Your task to perform on an android device: Open accessibility settings Image 0: 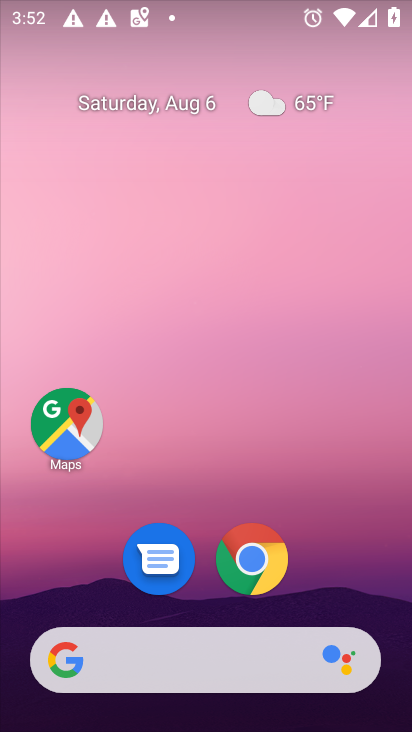
Step 0: drag from (207, 445) to (234, 15)
Your task to perform on an android device: Open accessibility settings Image 1: 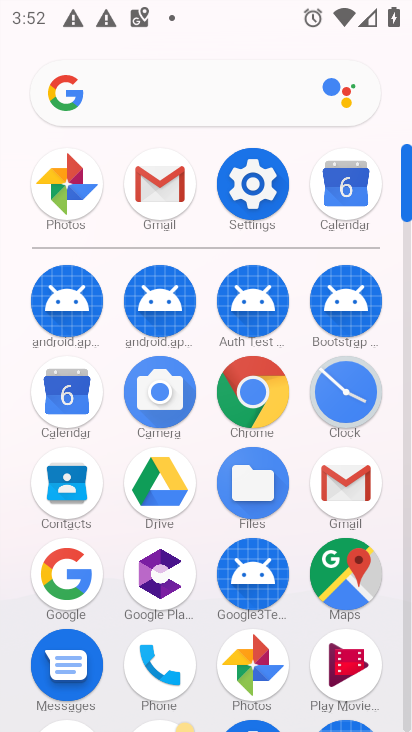
Step 1: click (257, 182)
Your task to perform on an android device: Open accessibility settings Image 2: 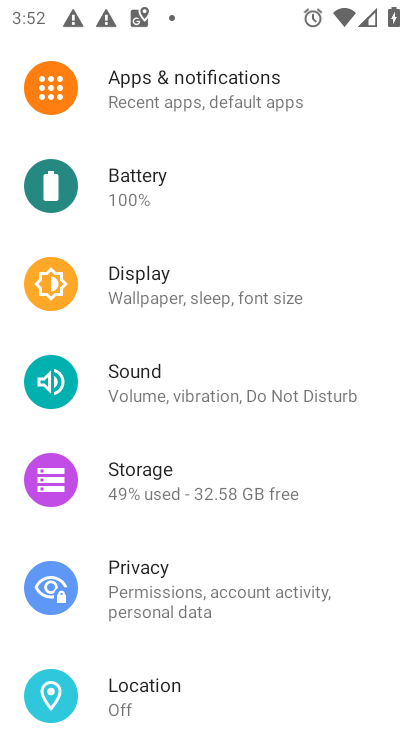
Step 2: drag from (265, 550) to (259, 266)
Your task to perform on an android device: Open accessibility settings Image 3: 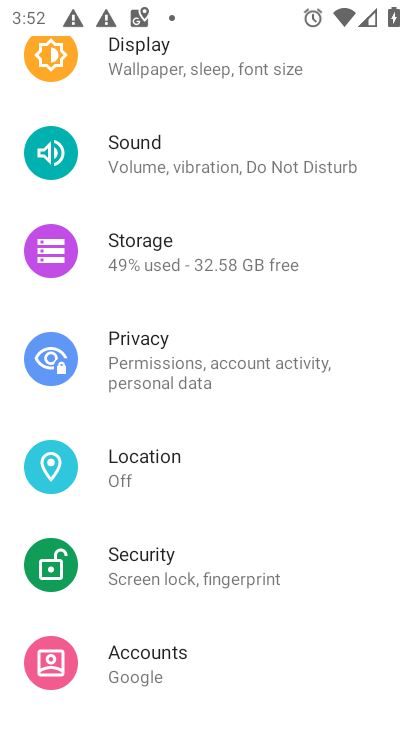
Step 3: drag from (225, 453) to (234, 168)
Your task to perform on an android device: Open accessibility settings Image 4: 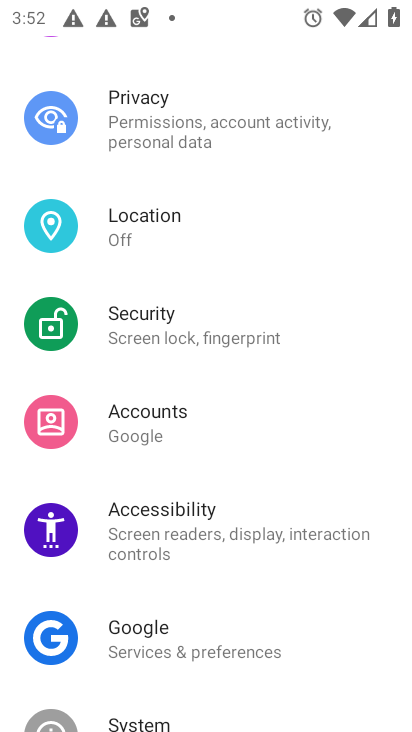
Step 4: click (194, 512)
Your task to perform on an android device: Open accessibility settings Image 5: 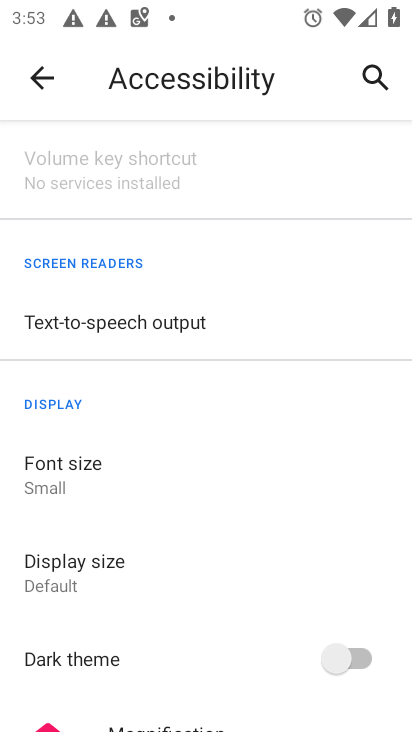
Step 5: task complete